Your task to perform on an android device: create a new album in the google photos Image 0: 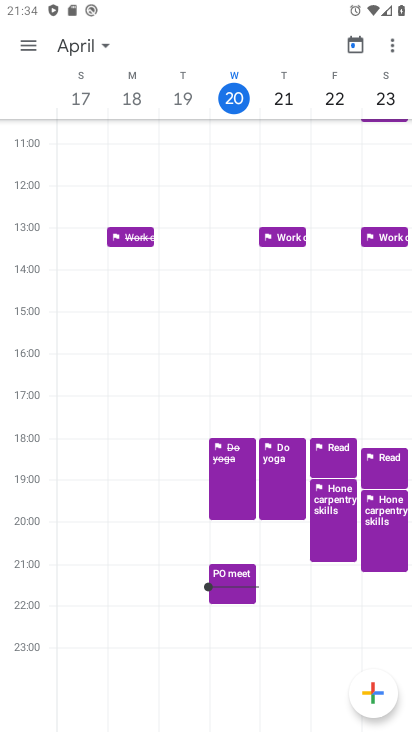
Step 0: press home button
Your task to perform on an android device: create a new album in the google photos Image 1: 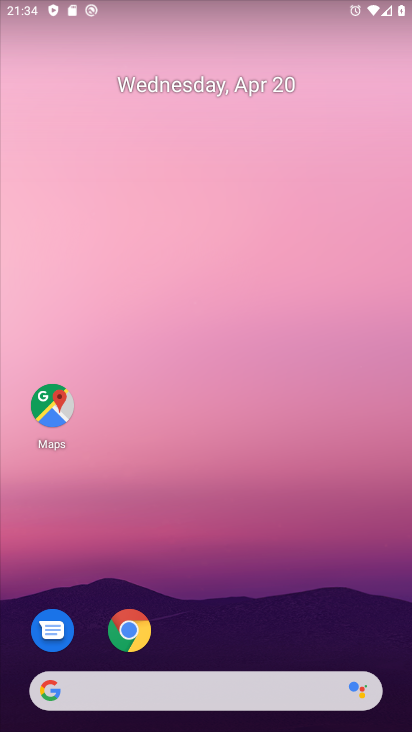
Step 1: drag from (235, 628) to (245, 108)
Your task to perform on an android device: create a new album in the google photos Image 2: 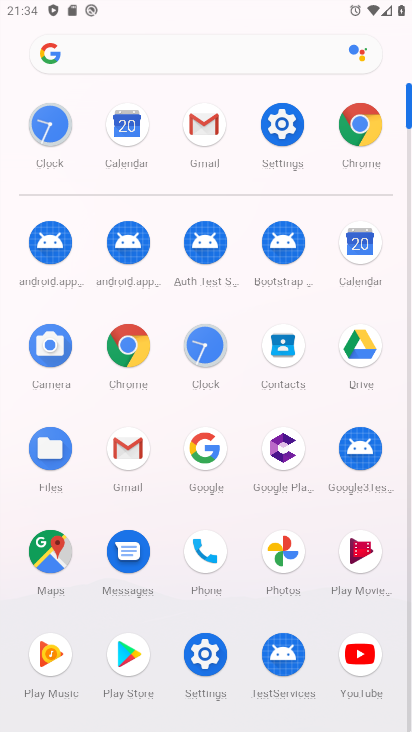
Step 2: click (278, 547)
Your task to perform on an android device: create a new album in the google photos Image 3: 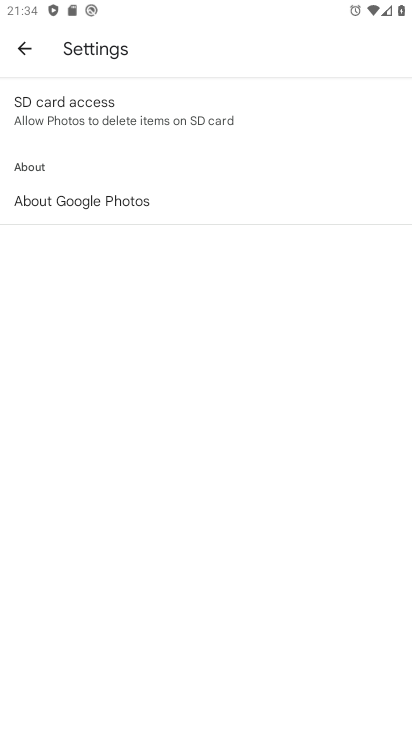
Step 3: click (27, 52)
Your task to perform on an android device: create a new album in the google photos Image 4: 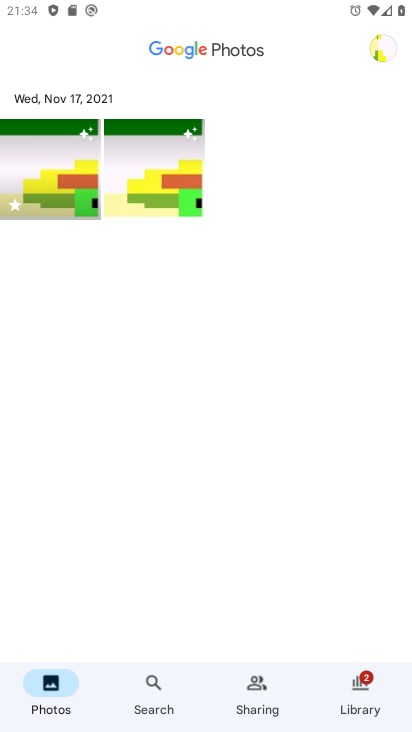
Step 4: click (361, 712)
Your task to perform on an android device: create a new album in the google photos Image 5: 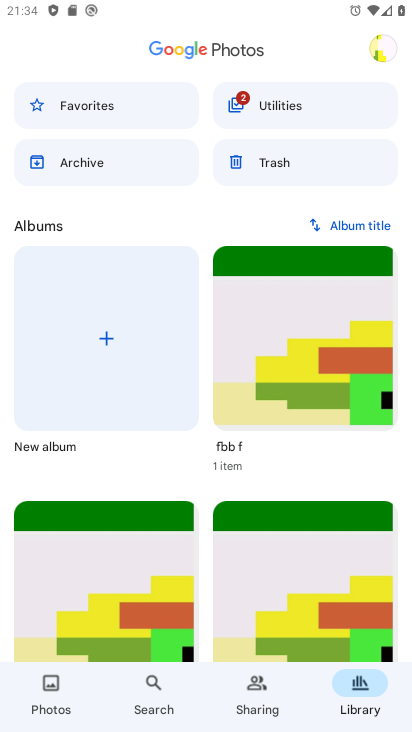
Step 5: click (106, 337)
Your task to perform on an android device: create a new album in the google photos Image 6: 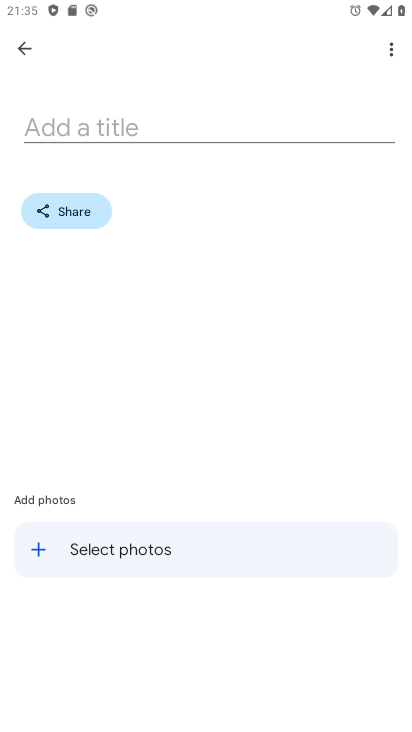
Step 6: click (85, 127)
Your task to perform on an android device: create a new album in the google photos Image 7: 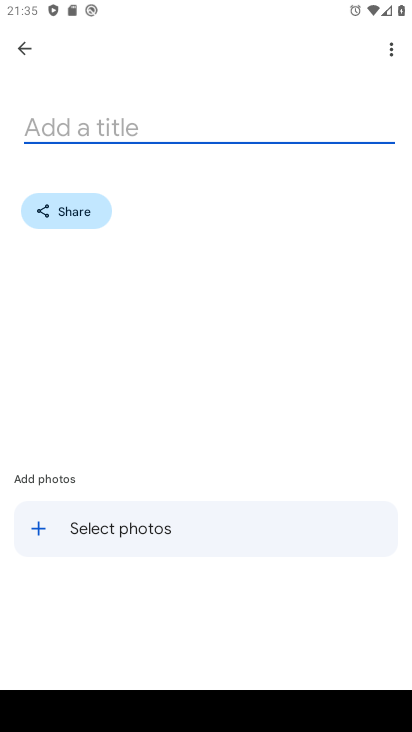
Step 7: type "rfhhjik"
Your task to perform on an android device: create a new album in the google photos Image 8: 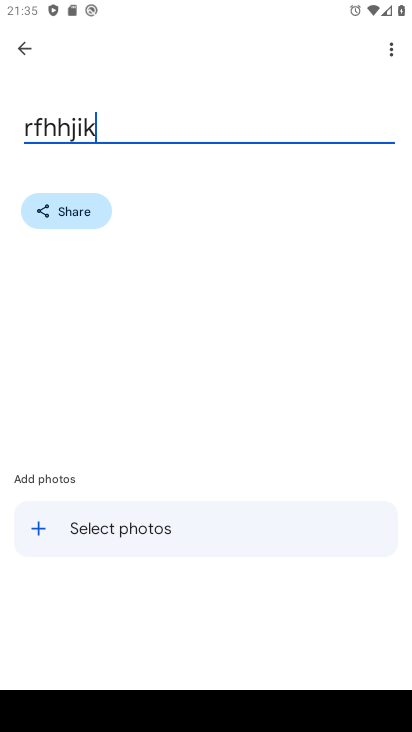
Step 8: click (34, 527)
Your task to perform on an android device: create a new album in the google photos Image 9: 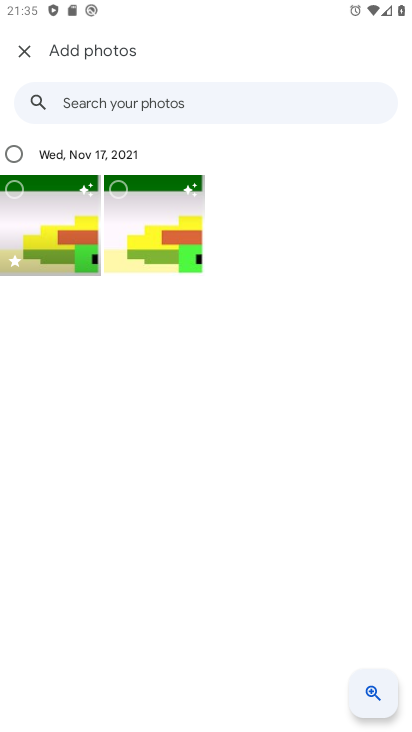
Step 9: click (120, 187)
Your task to perform on an android device: create a new album in the google photos Image 10: 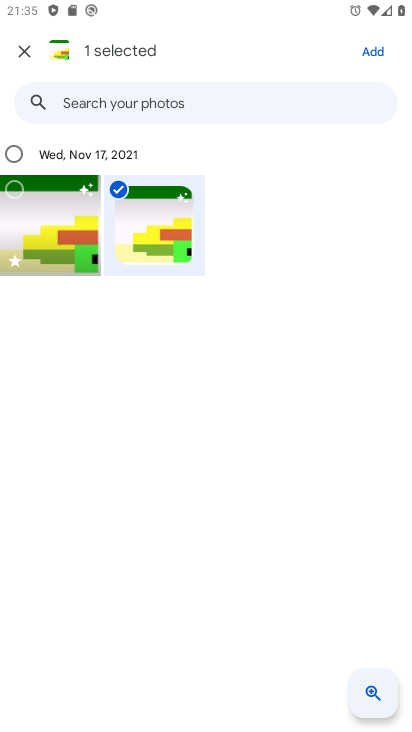
Step 10: click (18, 186)
Your task to perform on an android device: create a new album in the google photos Image 11: 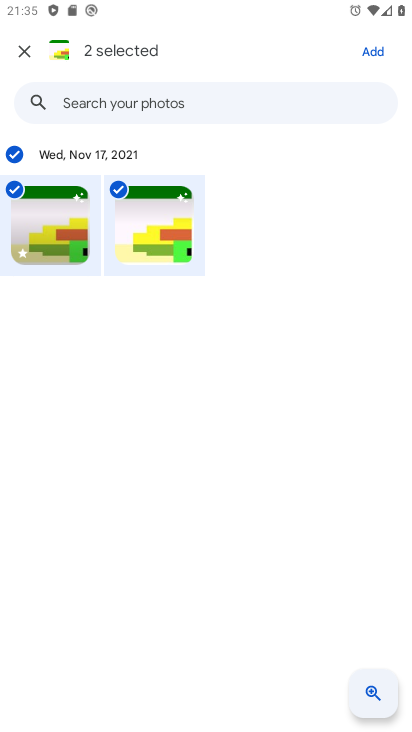
Step 11: click (375, 56)
Your task to perform on an android device: create a new album in the google photos Image 12: 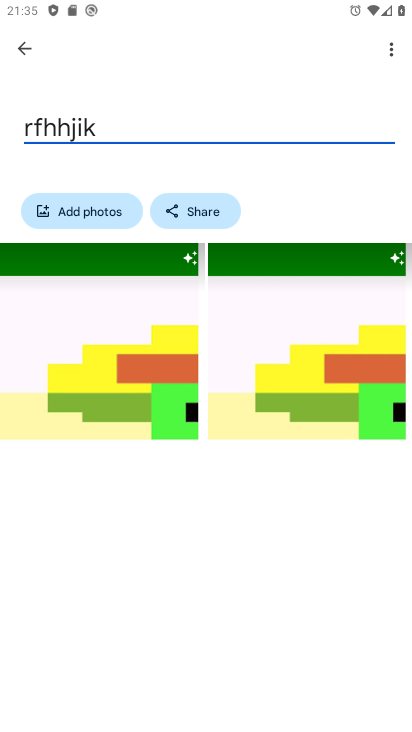
Step 12: task complete